Your task to perform on an android device: show emergency info Image 0: 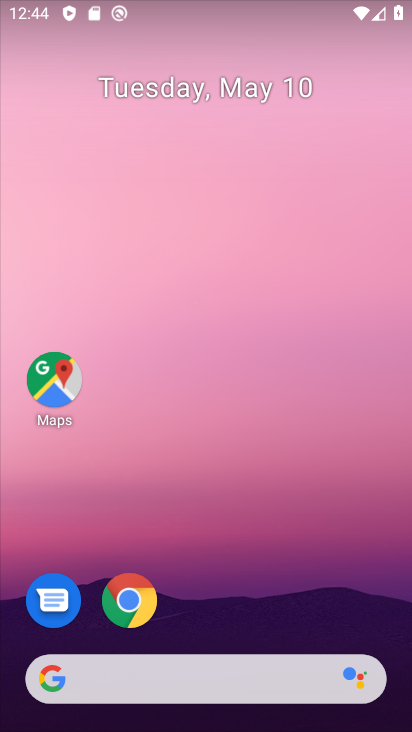
Step 0: drag from (177, 720) to (317, 220)
Your task to perform on an android device: show emergency info Image 1: 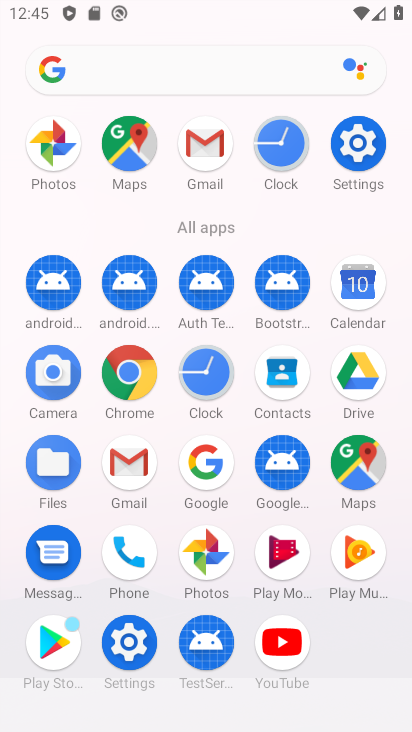
Step 1: click (133, 643)
Your task to perform on an android device: show emergency info Image 2: 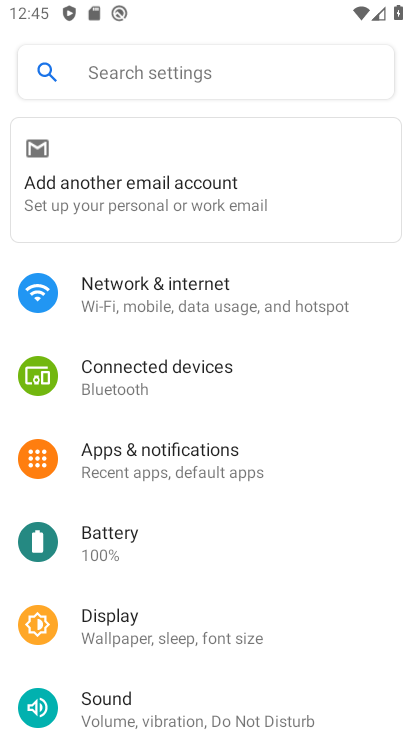
Step 2: drag from (185, 684) to (226, 384)
Your task to perform on an android device: show emergency info Image 3: 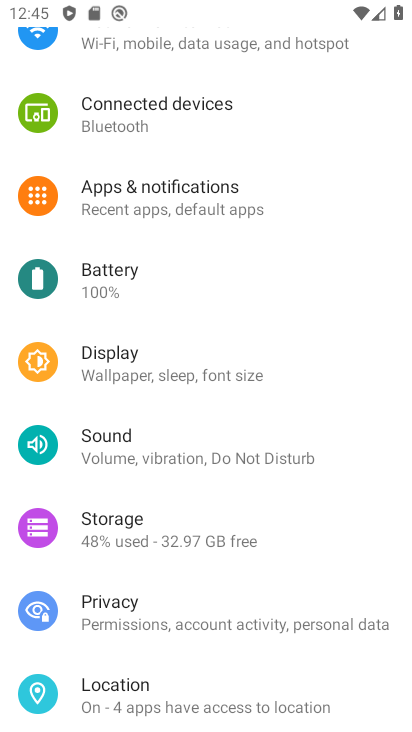
Step 3: drag from (206, 674) to (195, 317)
Your task to perform on an android device: show emergency info Image 4: 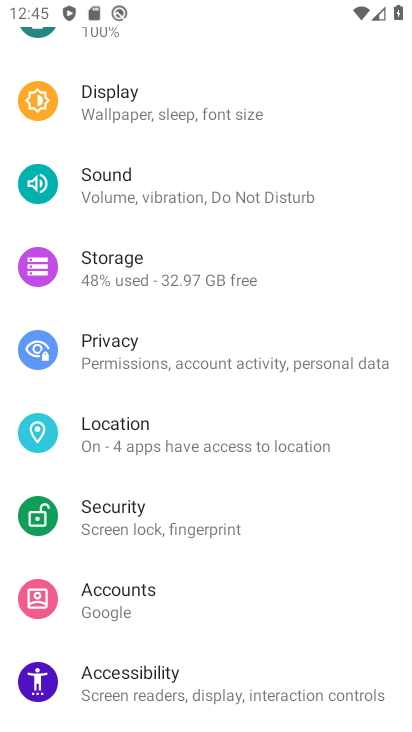
Step 4: drag from (220, 680) to (243, 385)
Your task to perform on an android device: show emergency info Image 5: 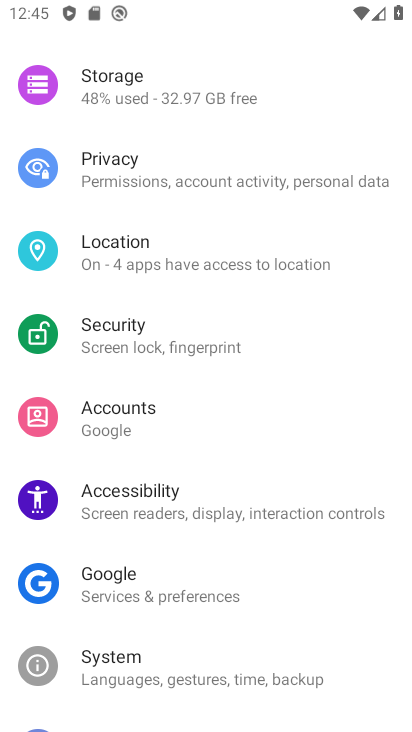
Step 5: drag from (182, 685) to (182, 531)
Your task to perform on an android device: show emergency info Image 6: 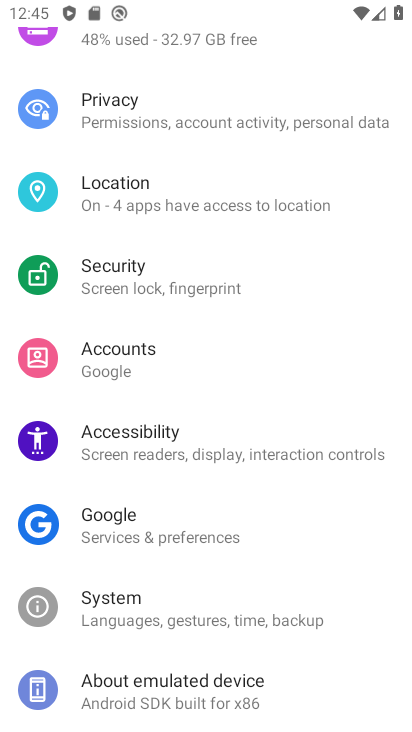
Step 6: click (190, 683)
Your task to perform on an android device: show emergency info Image 7: 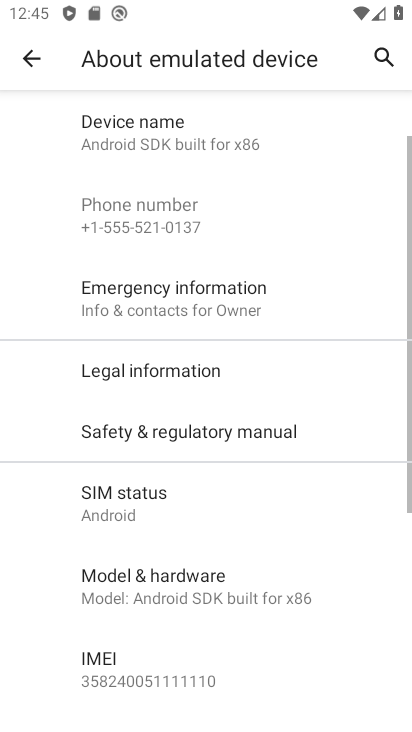
Step 7: click (220, 292)
Your task to perform on an android device: show emergency info Image 8: 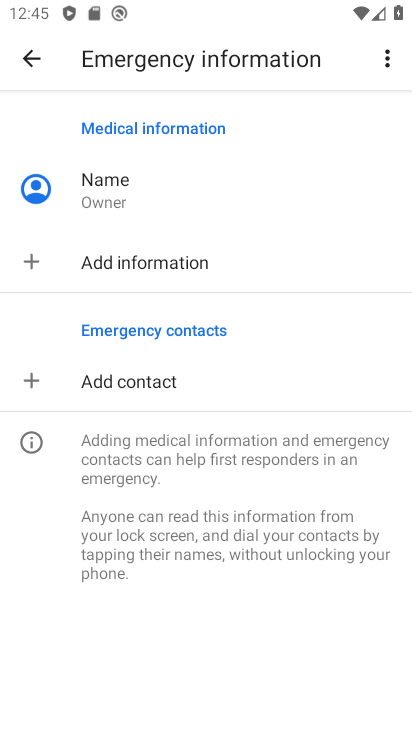
Step 8: task complete